Your task to perform on an android device: change notification settings in the gmail app Image 0: 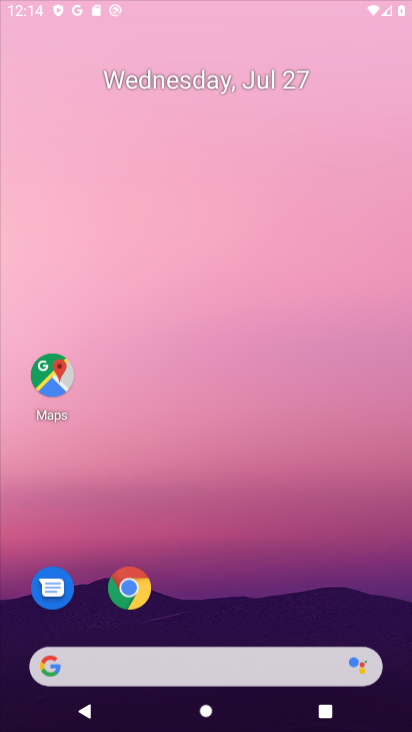
Step 0: drag from (383, 578) to (351, 50)
Your task to perform on an android device: change notification settings in the gmail app Image 1: 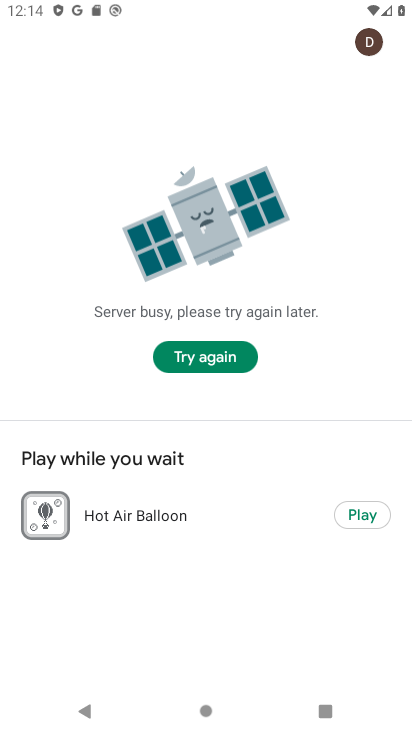
Step 1: press home button
Your task to perform on an android device: change notification settings in the gmail app Image 2: 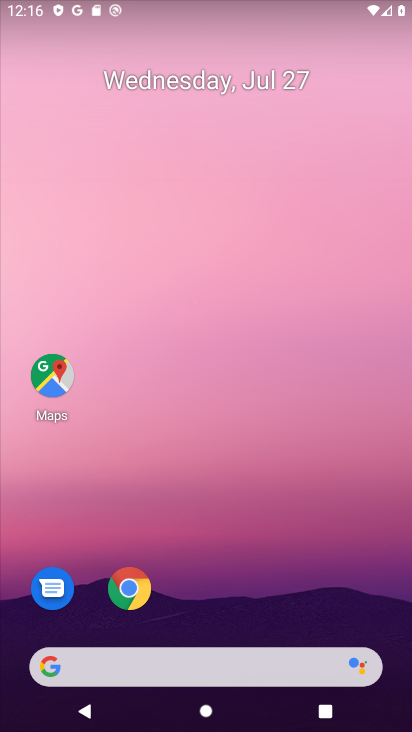
Step 2: drag from (402, 718) to (378, 152)
Your task to perform on an android device: change notification settings in the gmail app Image 3: 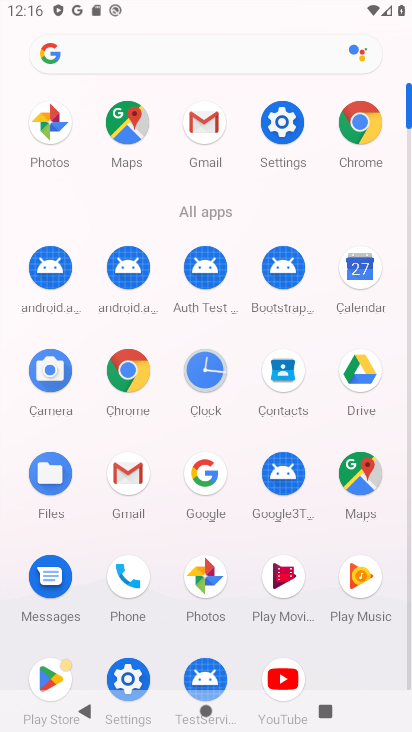
Step 3: click (205, 120)
Your task to perform on an android device: change notification settings in the gmail app Image 4: 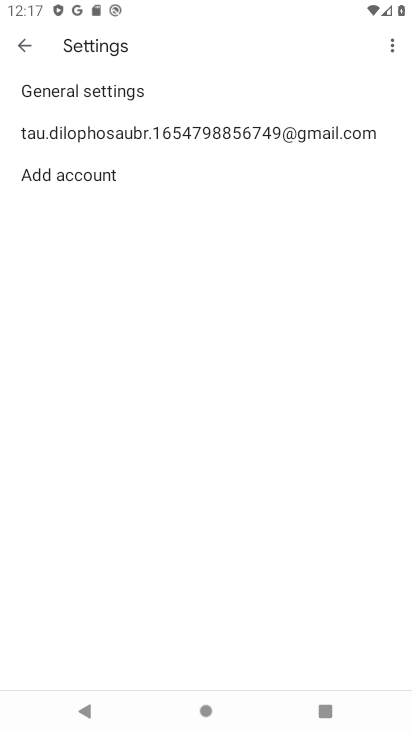
Step 4: click (187, 124)
Your task to perform on an android device: change notification settings in the gmail app Image 5: 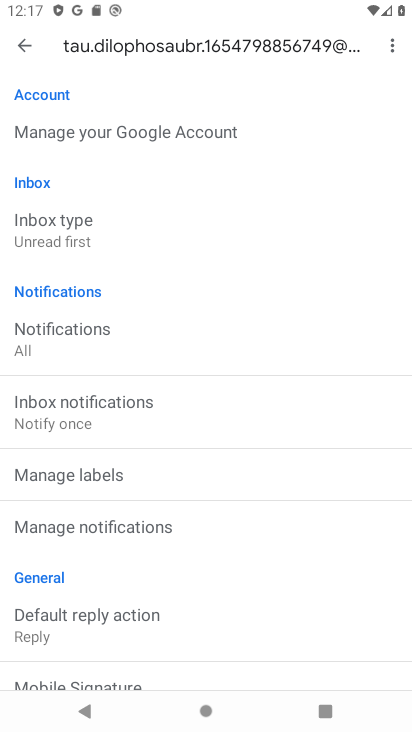
Step 5: drag from (305, 623) to (297, 311)
Your task to perform on an android device: change notification settings in the gmail app Image 6: 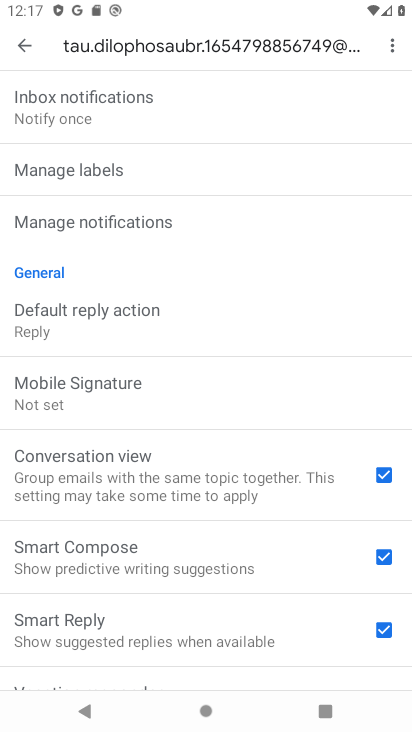
Step 6: drag from (301, 163) to (308, 437)
Your task to perform on an android device: change notification settings in the gmail app Image 7: 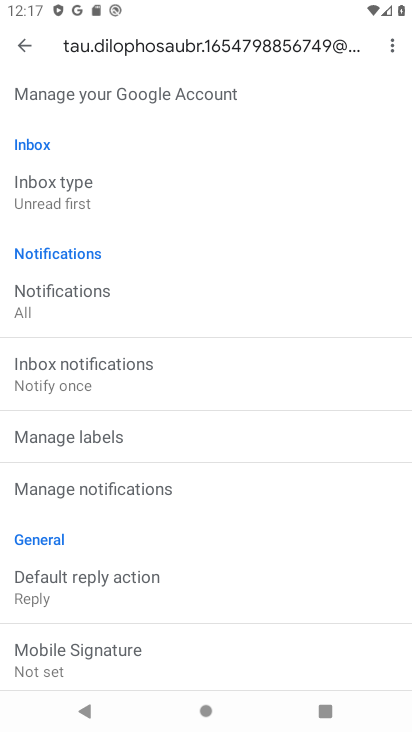
Step 7: click (67, 293)
Your task to perform on an android device: change notification settings in the gmail app Image 8: 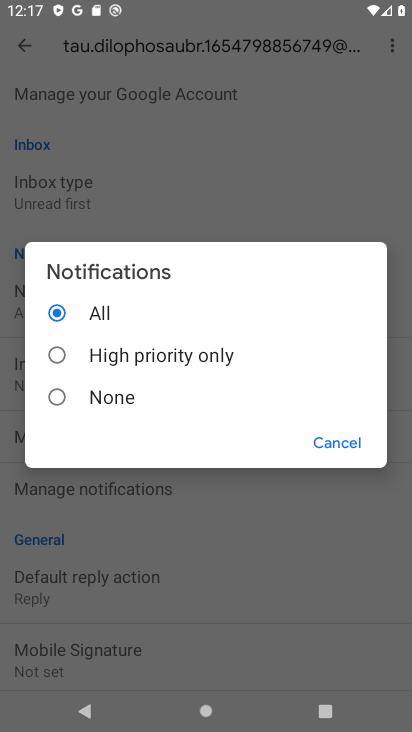
Step 8: click (59, 347)
Your task to perform on an android device: change notification settings in the gmail app Image 9: 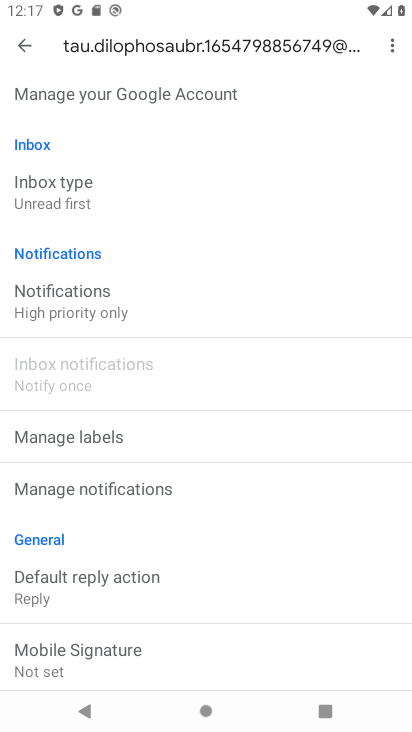
Step 9: task complete